Your task to perform on an android device: Go to calendar. Show me events next week Image 0: 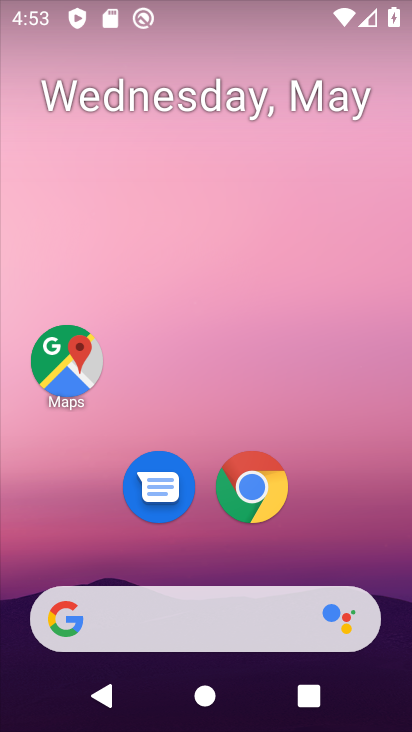
Step 0: drag from (331, 528) to (337, 70)
Your task to perform on an android device: Go to calendar. Show me events next week Image 1: 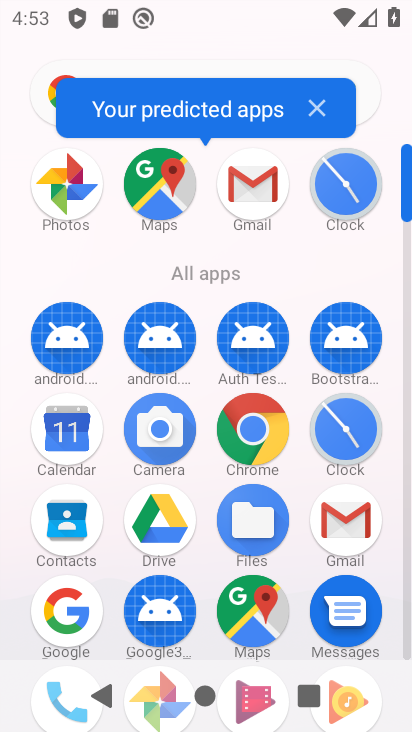
Step 1: click (63, 427)
Your task to perform on an android device: Go to calendar. Show me events next week Image 2: 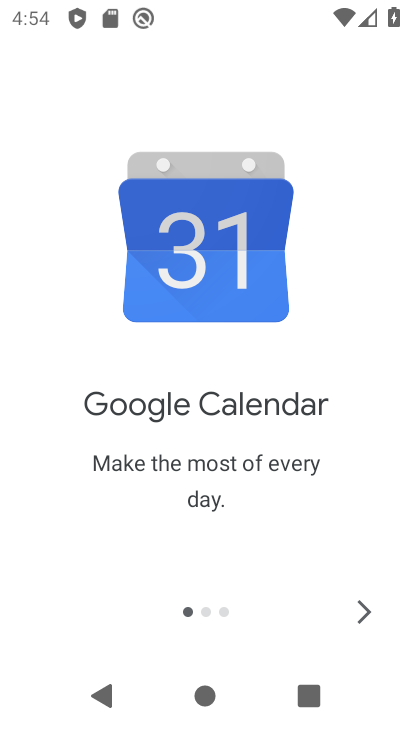
Step 2: click (367, 605)
Your task to perform on an android device: Go to calendar. Show me events next week Image 3: 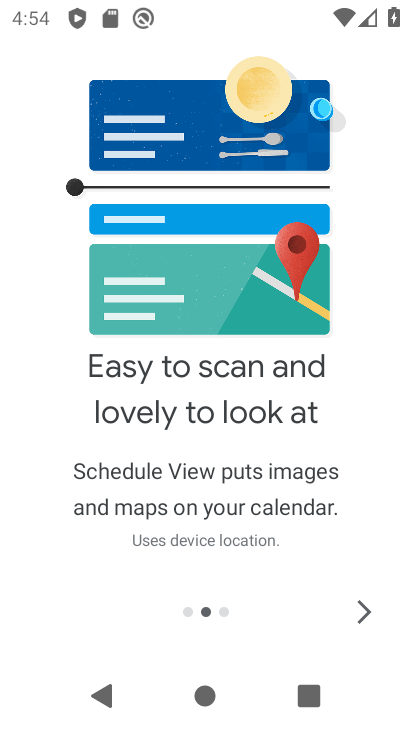
Step 3: click (367, 605)
Your task to perform on an android device: Go to calendar. Show me events next week Image 4: 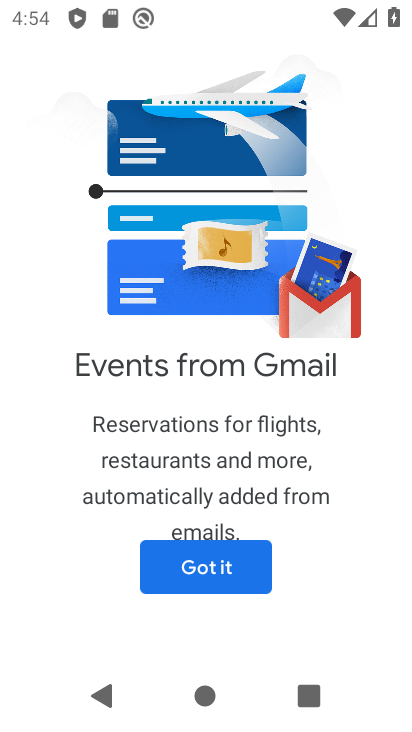
Step 4: click (249, 566)
Your task to perform on an android device: Go to calendar. Show me events next week Image 5: 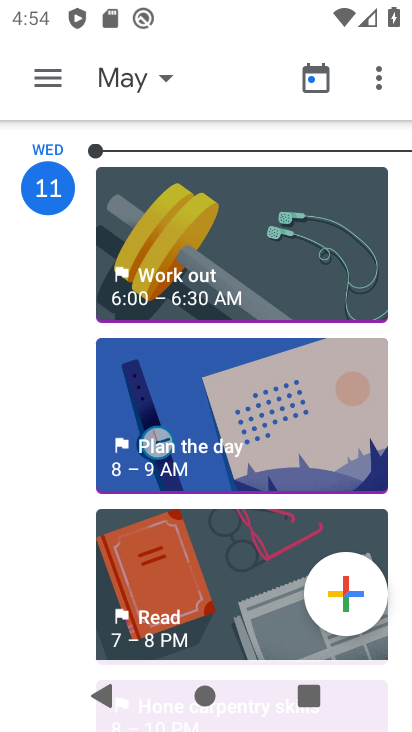
Step 5: task complete